Your task to perform on an android device: Search for seafood restaurants on Google Maps Image 0: 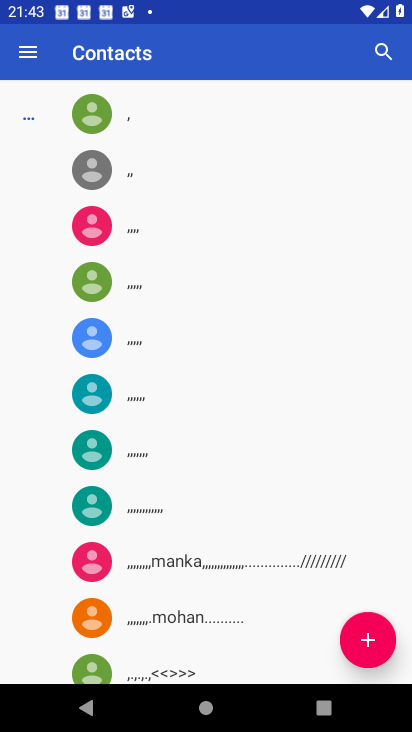
Step 0: press home button
Your task to perform on an android device: Search for seafood restaurants on Google Maps Image 1: 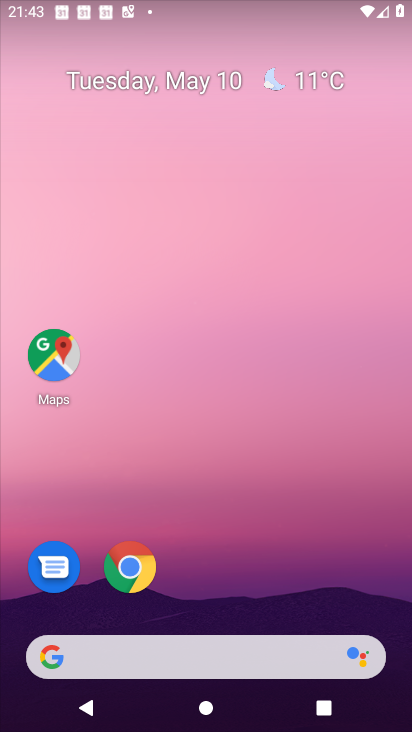
Step 1: click (52, 358)
Your task to perform on an android device: Search for seafood restaurants on Google Maps Image 2: 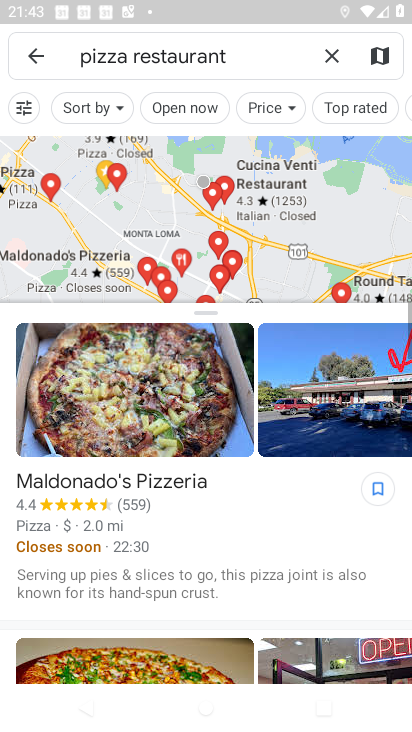
Step 2: click (339, 60)
Your task to perform on an android device: Search for seafood restaurants on Google Maps Image 3: 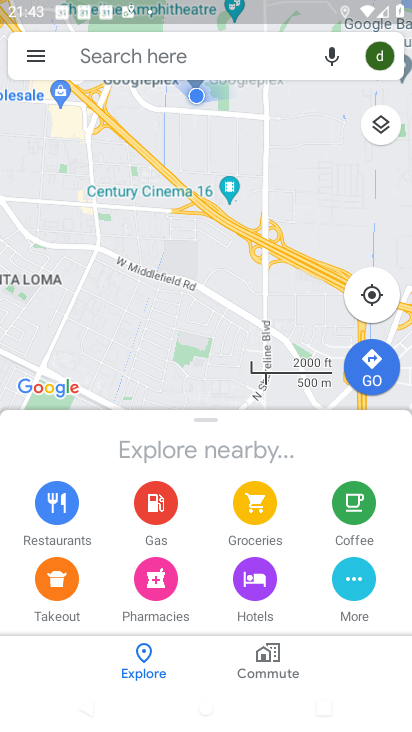
Step 3: click (128, 59)
Your task to perform on an android device: Search for seafood restaurants on Google Maps Image 4: 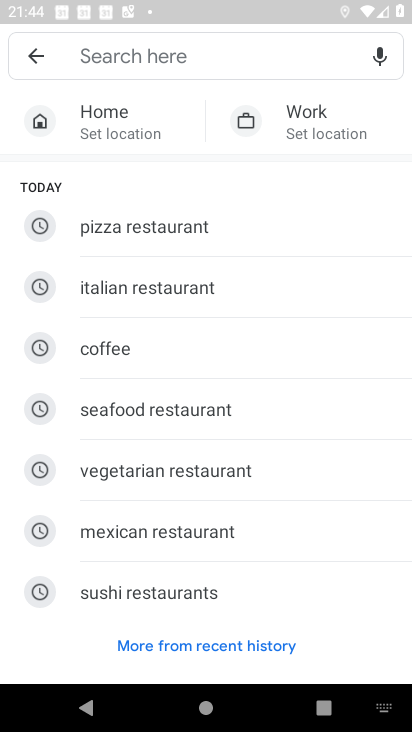
Step 4: click (170, 414)
Your task to perform on an android device: Search for seafood restaurants on Google Maps Image 5: 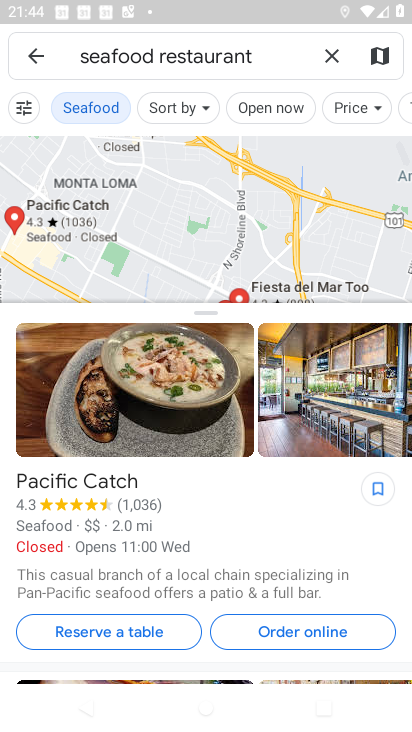
Step 5: task complete